Your task to perform on an android device: toggle javascript in the chrome app Image 0: 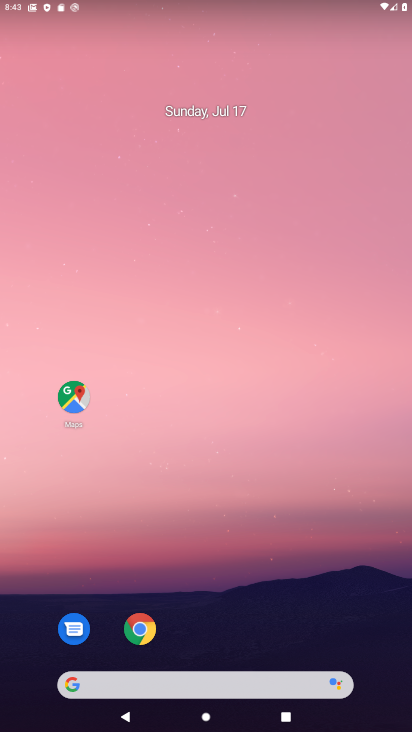
Step 0: click (136, 628)
Your task to perform on an android device: toggle javascript in the chrome app Image 1: 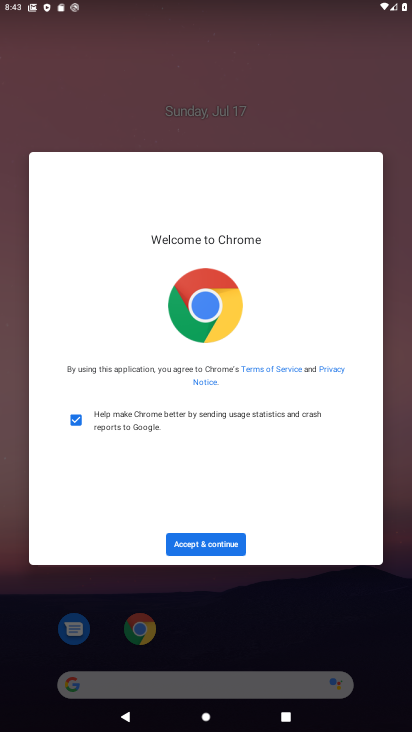
Step 1: click (203, 546)
Your task to perform on an android device: toggle javascript in the chrome app Image 2: 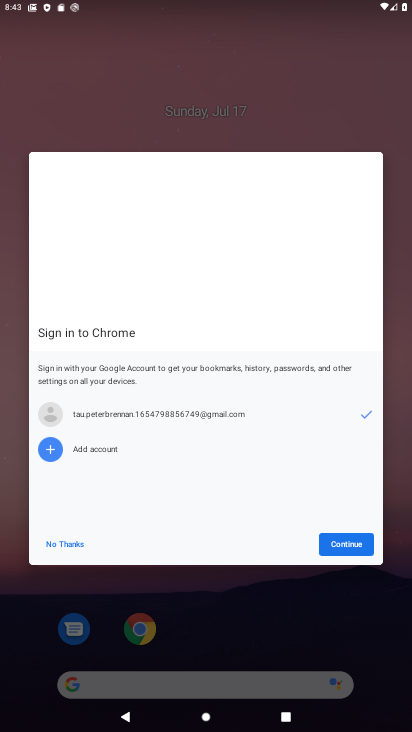
Step 2: click (342, 548)
Your task to perform on an android device: toggle javascript in the chrome app Image 3: 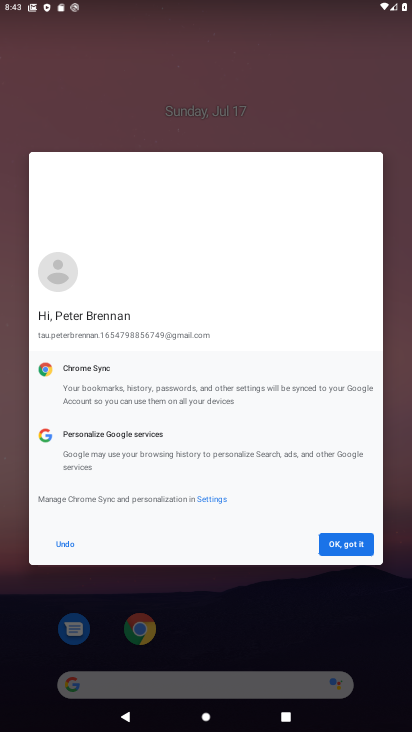
Step 3: click (342, 548)
Your task to perform on an android device: toggle javascript in the chrome app Image 4: 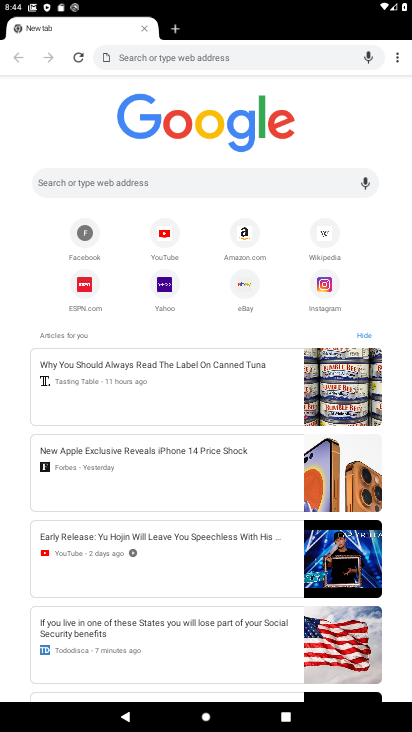
Step 4: click (397, 64)
Your task to perform on an android device: toggle javascript in the chrome app Image 5: 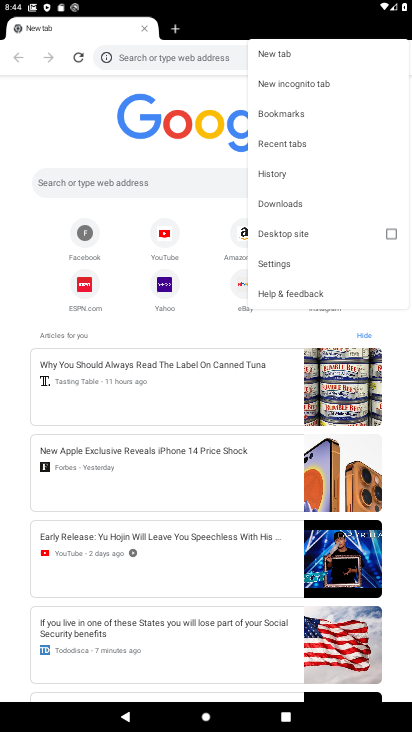
Step 5: click (261, 263)
Your task to perform on an android device: toggle javascript in the chrome app Image 6: 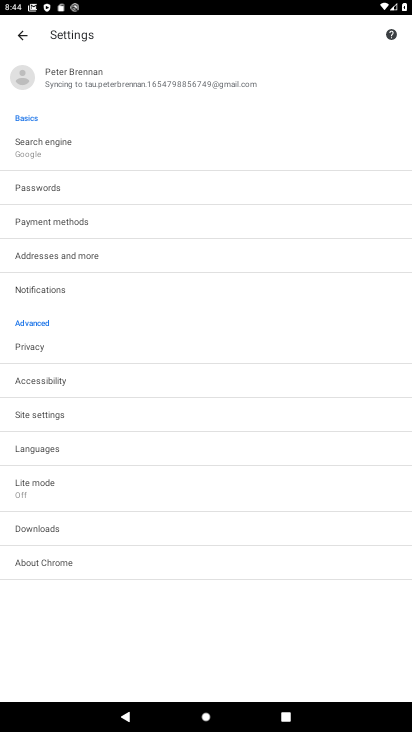
Step 6: click (30, 412)
Your task to perform on an android device: toggle javascript in the chrome app Image 7: 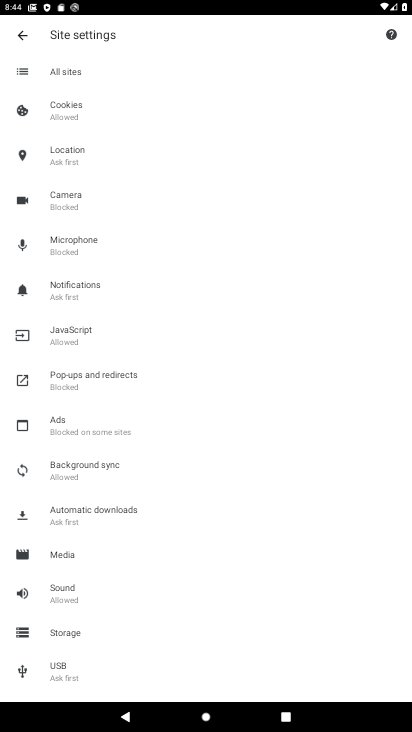
Step 7: click (63, 328)
Your task to perform on an android device: toggle javascript in the chrome app Image 8: 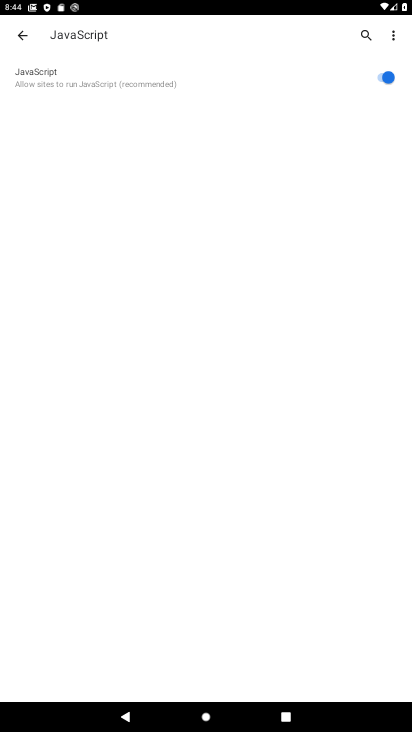
Step 8: click (381, 76)
Your task to perform on an android device: toggle javascript in the chrome app Image 9: 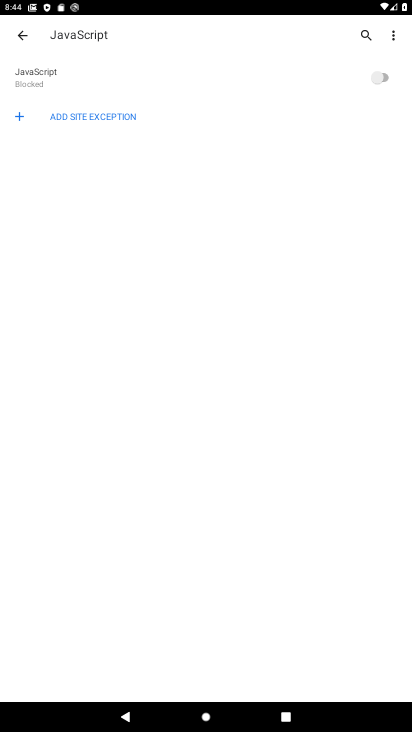
Step 9: task complete